Your task to perform on an android device: check google app version Image 0: 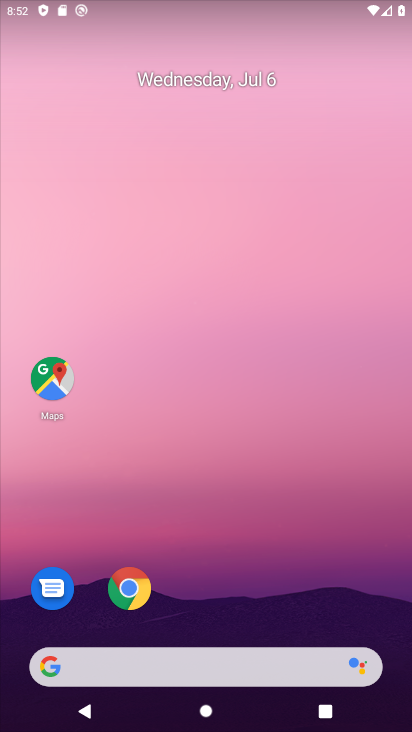
Step 0: drag from (176, 620) to (230, 213)
Your task to perform on an android device: check google app version Image 1: 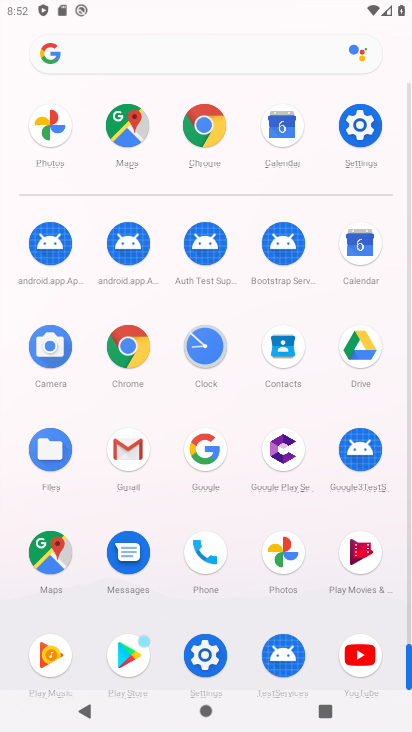
Step 1: click (203, 455)
Your task to perform on an android device: check google app version Image 2: 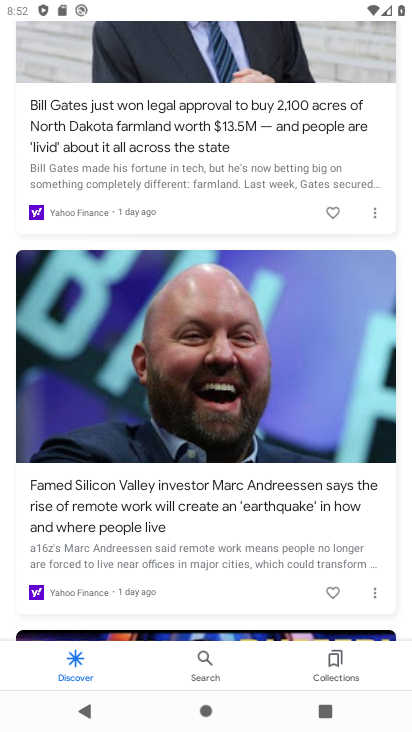
Step 2: drag from (211, 558) to (264, 191)
Your task to perform on an android device: check google app version Image 3: 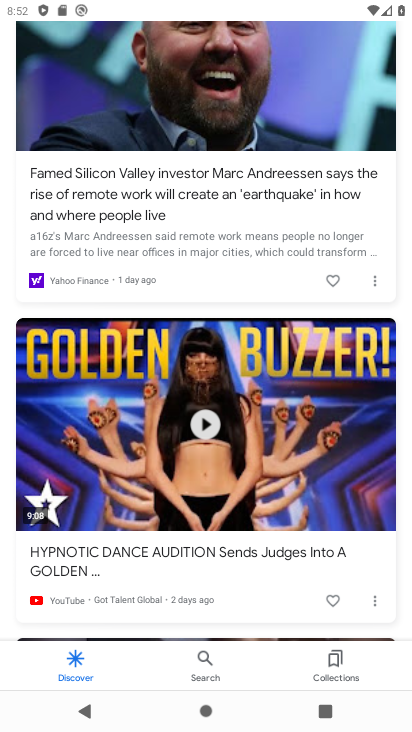
Step 3: drag from (216, 100) to (138, 729)
Your task to perform on an android device: check google app version Image 4: 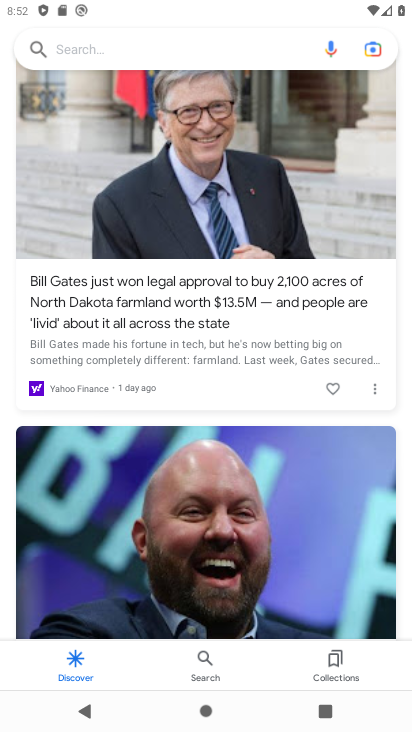
Step 4: drag from (286, 192) to (329, 726)
Your task to perform on an android device: check google app version Image 5: 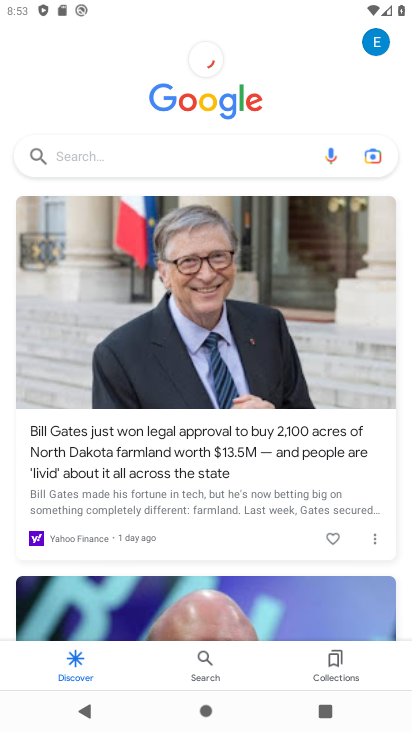
Step 5: click (368, 53)
Your task to perform on an android device: check google app version Image 6: 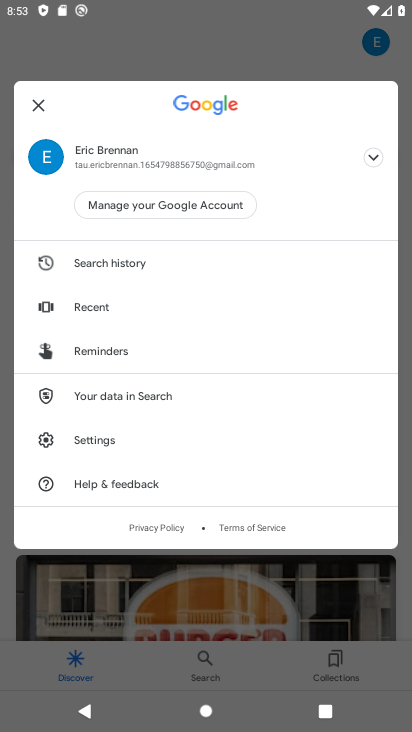
Step 6: click (102, 443)
Your task to perform on an android device: check google app version Image 7: 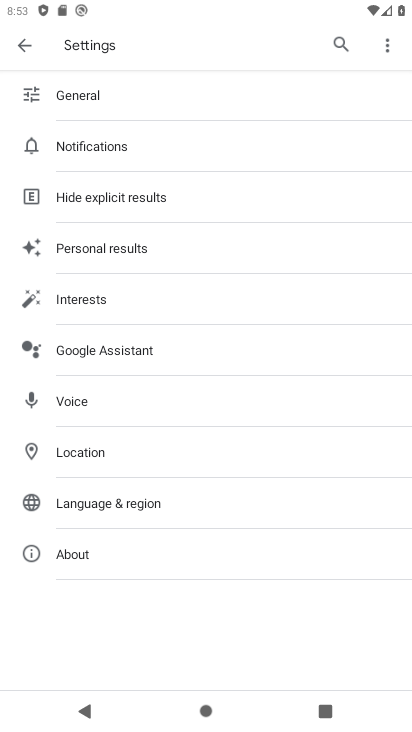
Step 7: click (88, 555)
Your task to perform on an android device: check google app version Image 8: 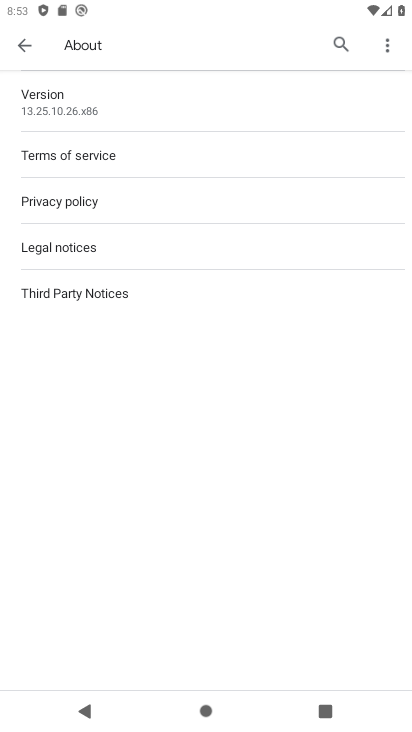
Step 8: click (93, 101)
Your task to perform on an android device: check google app version Image 9: 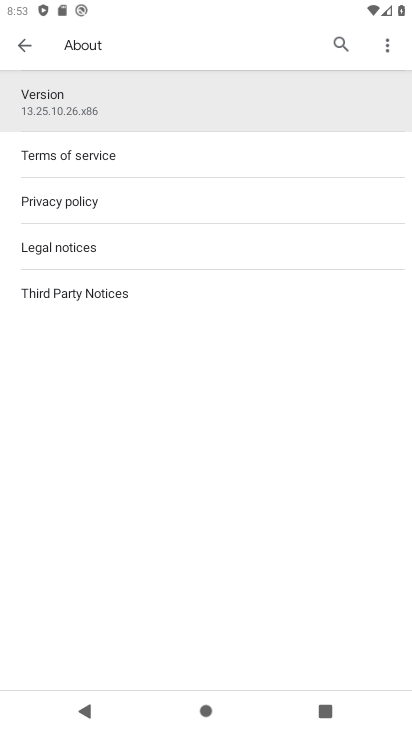
Step 9: click (93, 106)
Your task to perform on an android device: check google app version Image 10: 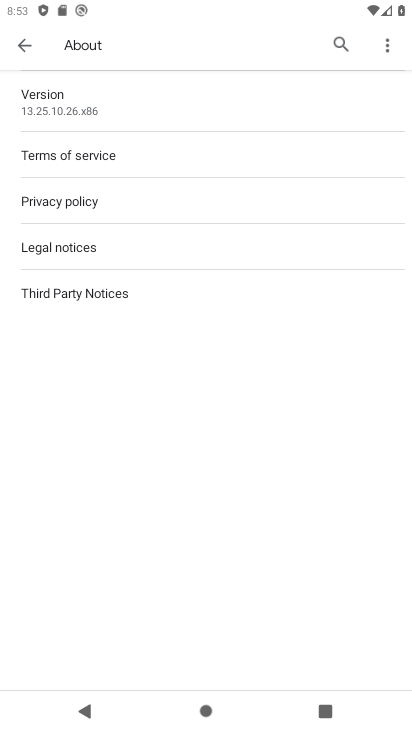
Step 10: drag from (235, 524) to (249, 285)
Your task to perform on an android device: check google app version Image 11: 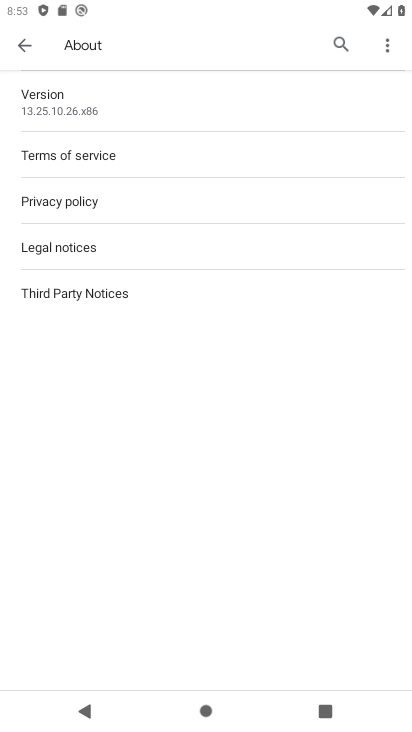
Step 11: click (213, 96)
Your task to perform on an android device: check google app version Image 12: 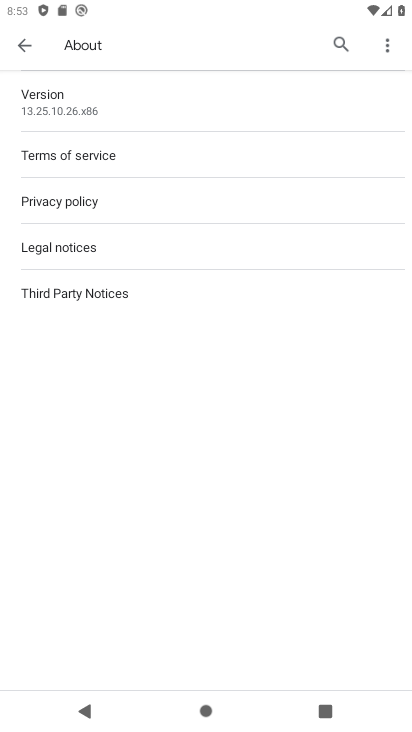
Step 12: task complete